Your task to perform on an android device: Go to Yahoo.com Image 0: 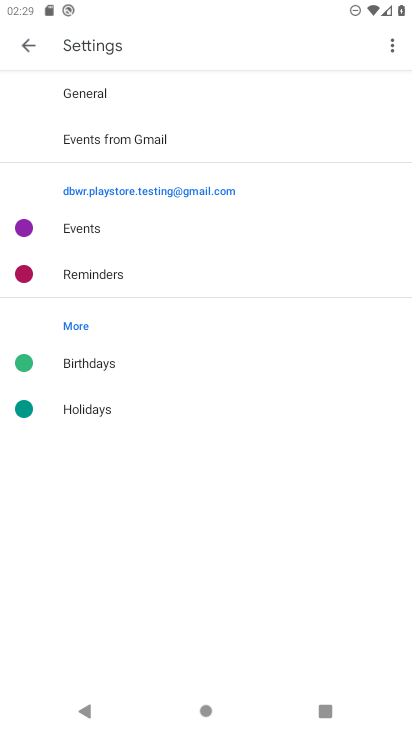
Step 0: press home button
Your task to perform on an android device: Go to Yahoo.com Image 1: 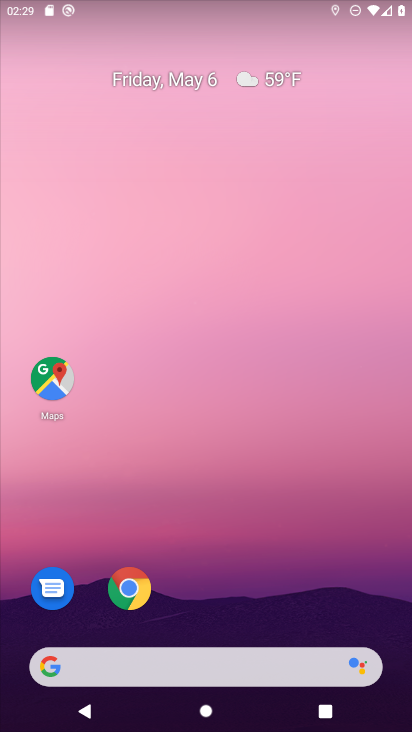
Step 1: click (134, 589)
Your task to perform on an android device: Go to Yahoo.com Image 2: 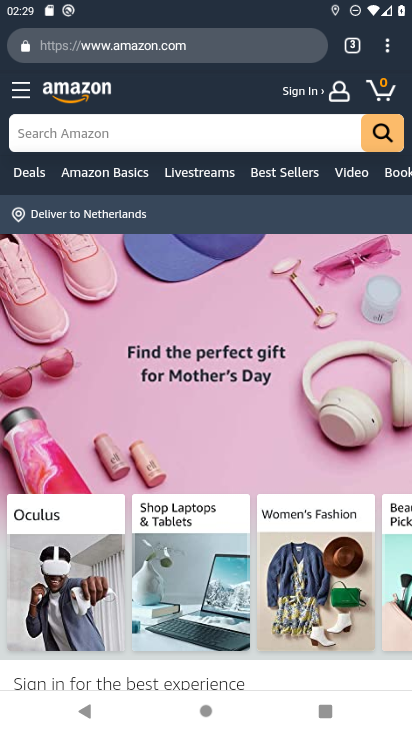
Step 2: click (360, 40)
Your task to perform on an android device: Go to Yahoo.com Image 3: 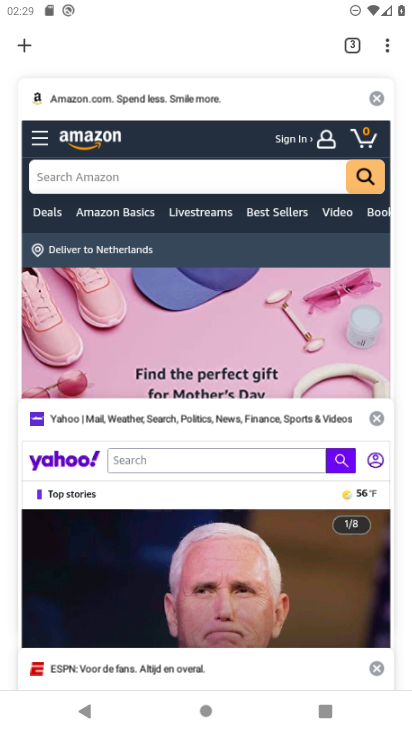
Step 3: click (16, 44)
Your task to perform on an android device: Go to Yahoo.com Image 4: 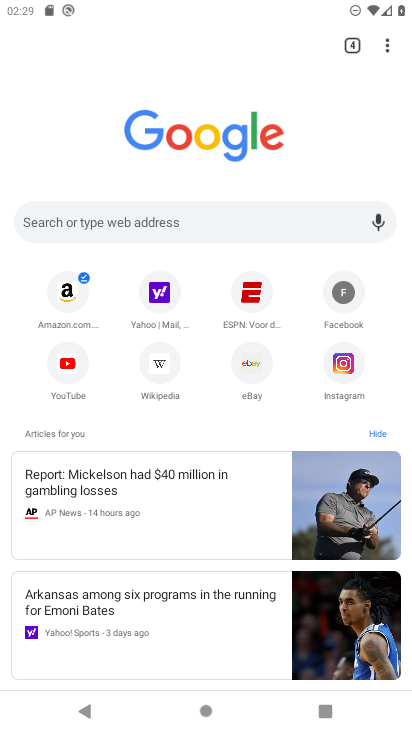
Step 4: click (161, 301)
Your task to perform on an android device: Go to Yahoo.com Image 5: 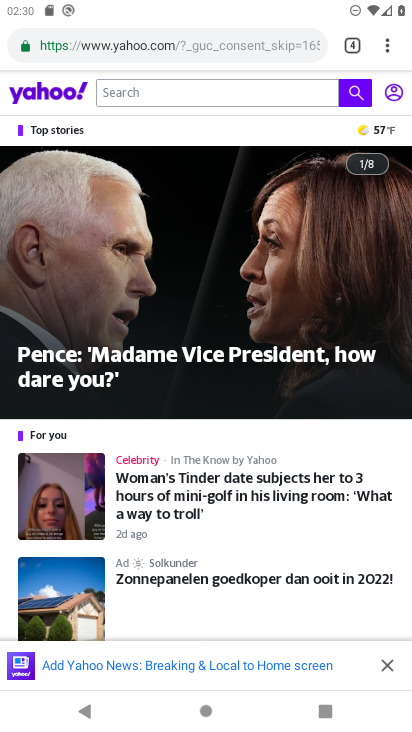
Step 5: task complete